Your task to perform on an android device: Open the map Image 0: 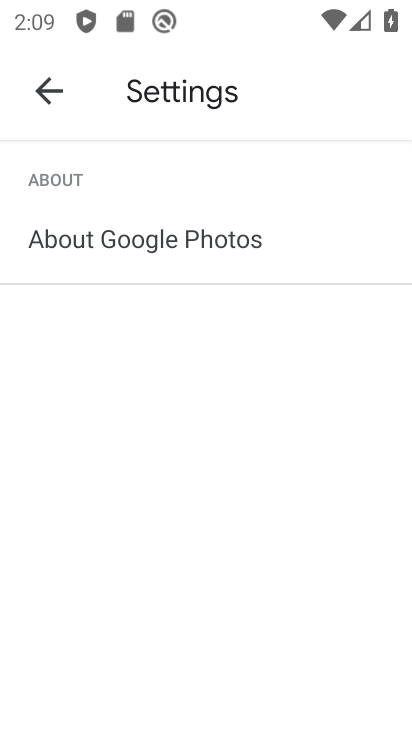
Step 0: click (48, 78)
Your task to perform on an android device: Open the map Image 1: 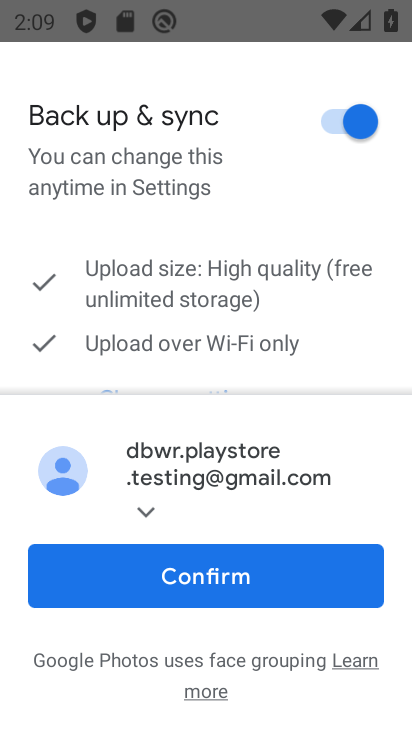
Step 1: click (45, 85)
Your task to perform on an android device: Open the map Image 2: 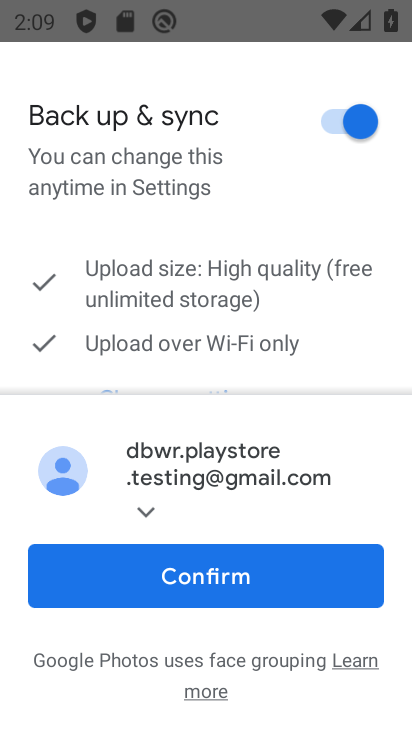
Step 2: press home button
Your task to perform on an android device: Open the map Image 3: 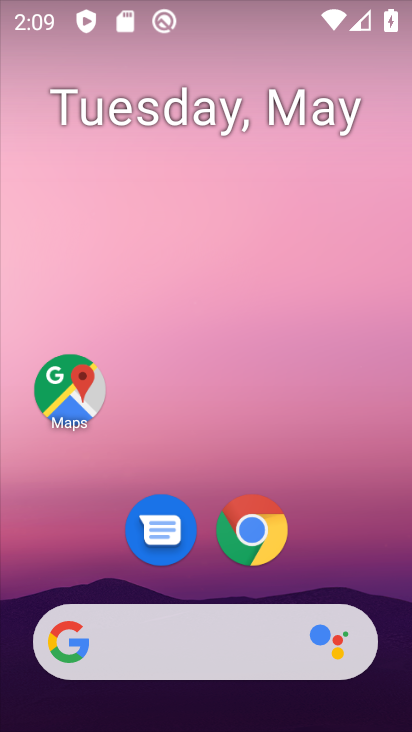
Step 3: click (60, 395)
Your task to perform on an android device: Open the map Image 4: 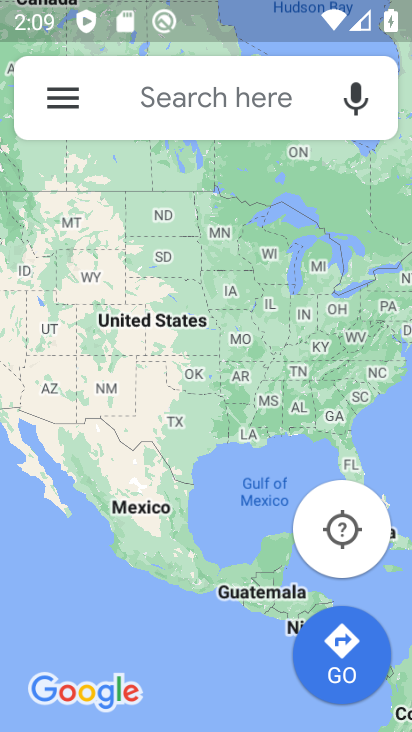
Step 4: task complete